Your task to perform on an android device: Play the last video I watched on Youtube Image 0: 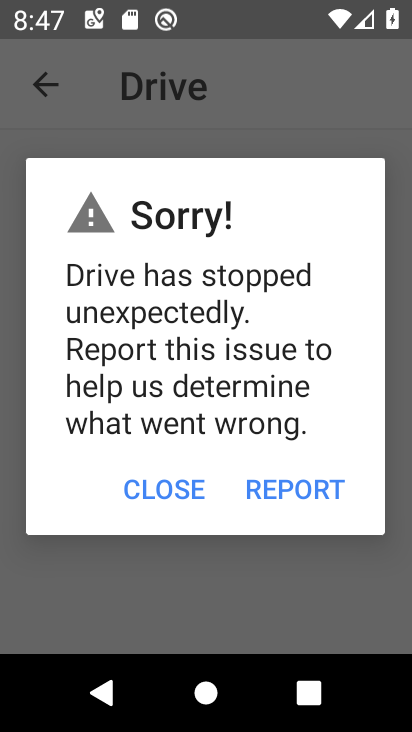
Step 0: press home button
Your task to perform on an android device: Play the last video I watched on Youtube Image 1: 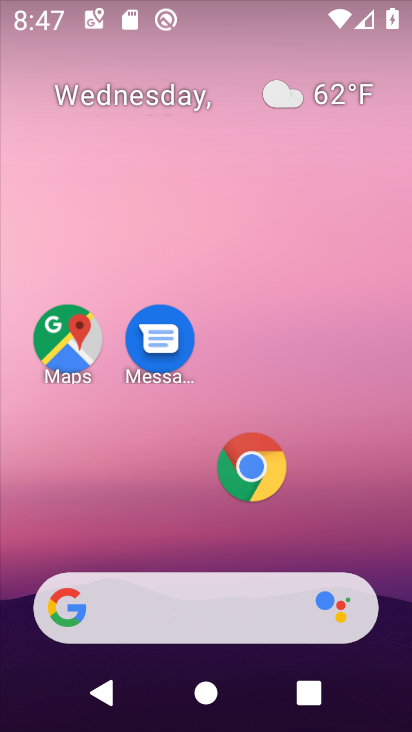
Step 1: drag from (152, 499) to (151, 35)
Your task to perform on an android device: Play the last video I watched on Youtube Image 2: 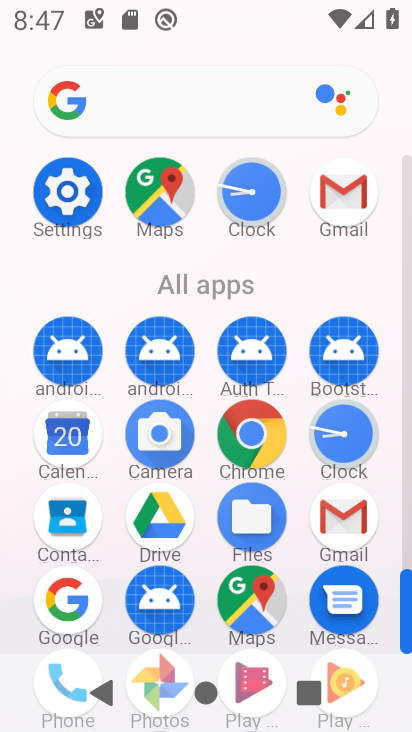
Step 2: drag from (204, 567) to (203, 207)
Your task to perform on an android device: Play the last video I watched on Youtube Image 3: 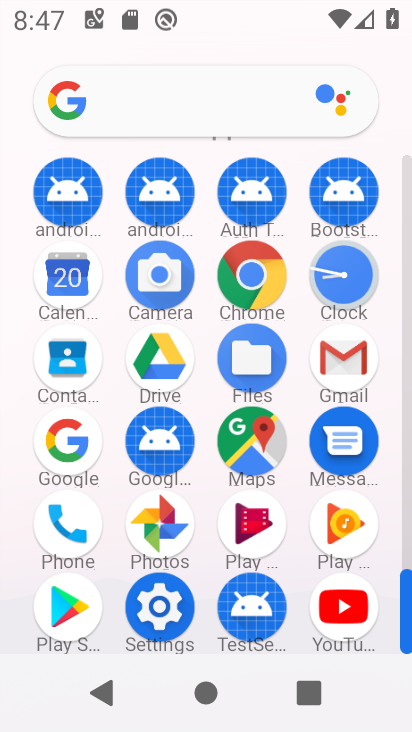
Step 3: click (335, 590)
Your task to perform on an android device: Play the last video I watched on Youtube Image 4: 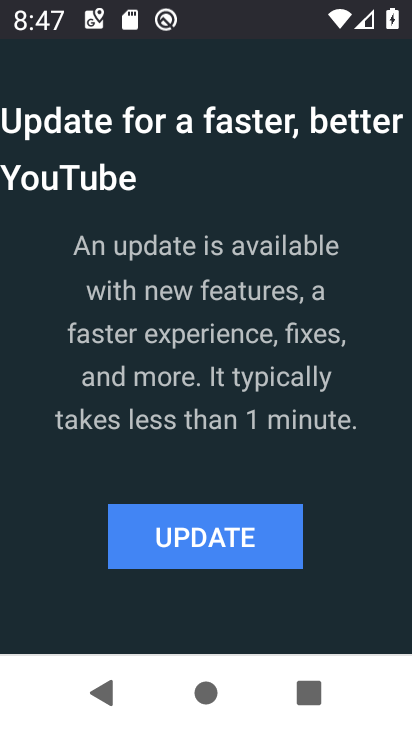
Step 4: click (184, 543)
Your task to perform on an android device: Play the last video I watched on Youtube Image 5: 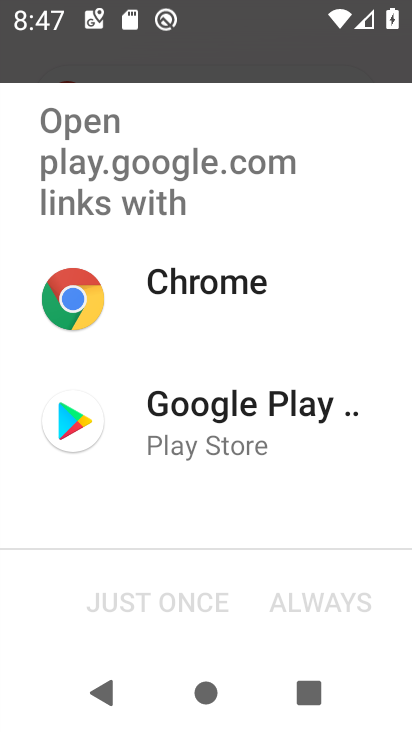
Step 5: click (219, 420)
Your task to perform on an android device: Play the last video I watched on Youtube Image 6: 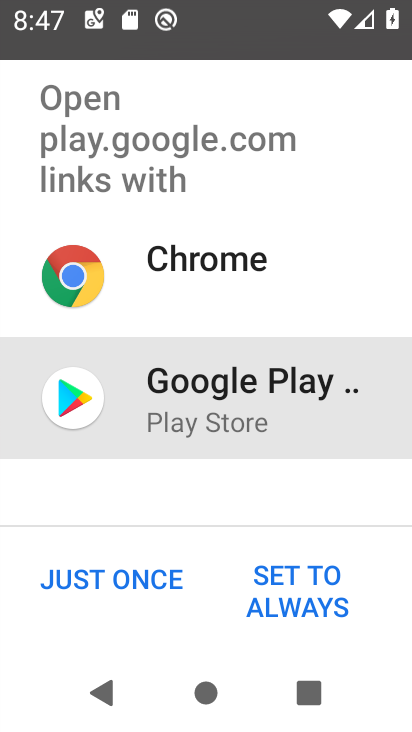
Step 6: click (157, 590)
Your task to perform on an android device: Play the last video I watched on Youtube Image 7: 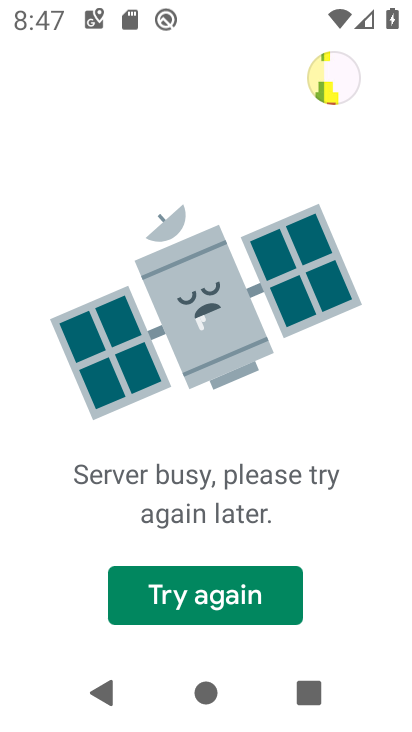
Step 7: click (195, 585)
Your task to perform on an android device: Play the last video I watched on Youtube Image 8: 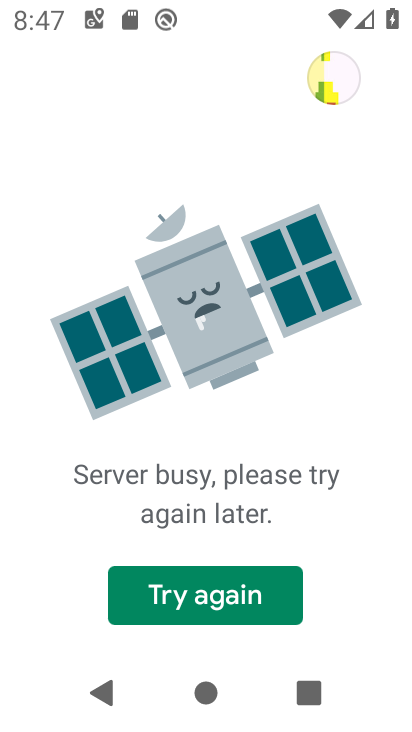
Step 8: task complete